Your task to perform on an android device: Go to Yahoo.com Image 0: 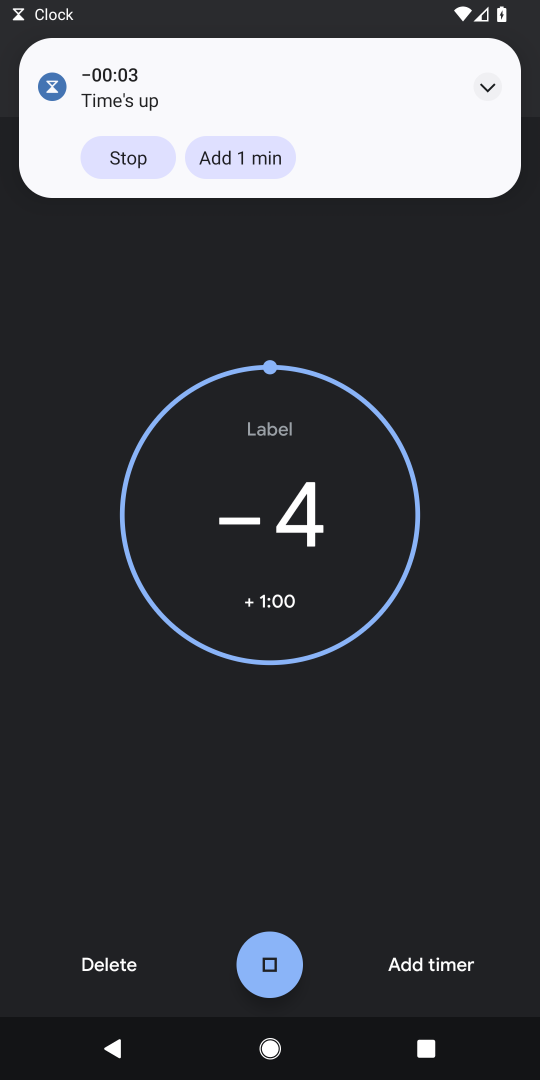
Step 0: click (116, 160)
Your task to perform on an android device: Go to Yahoo.com Image 1: 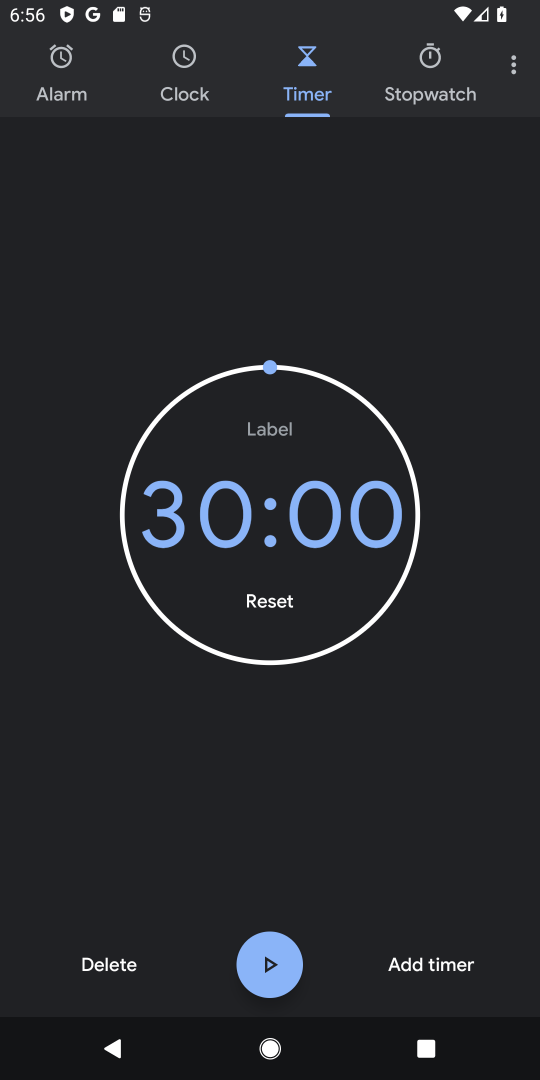
Step 1: press home button
Your task to perform on an android device: Go to Yahoo.com Image 2: 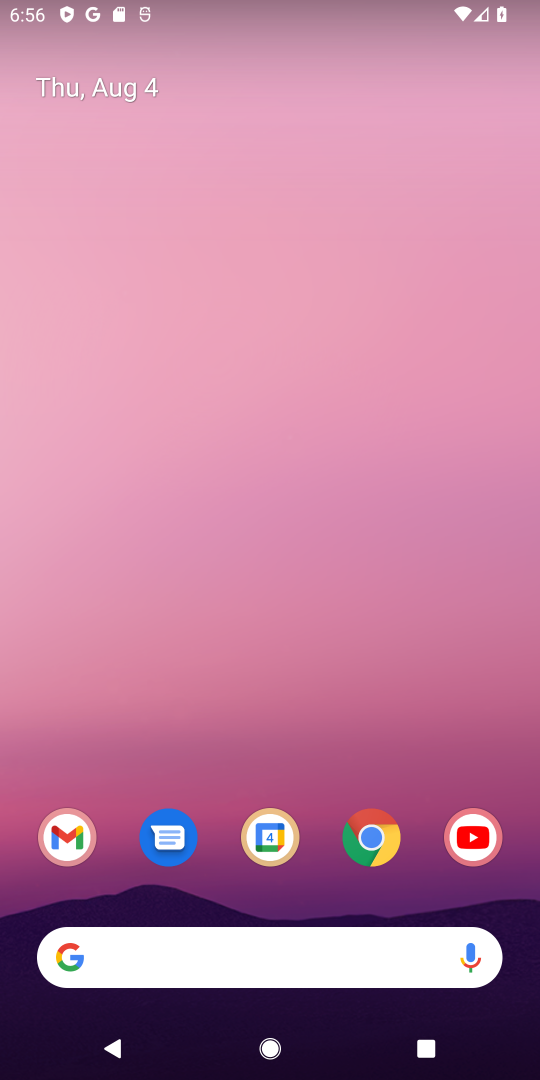
Step 2: click (365, 830)
Your task to perform on an android device: Go to Yahoo.com Image 3: 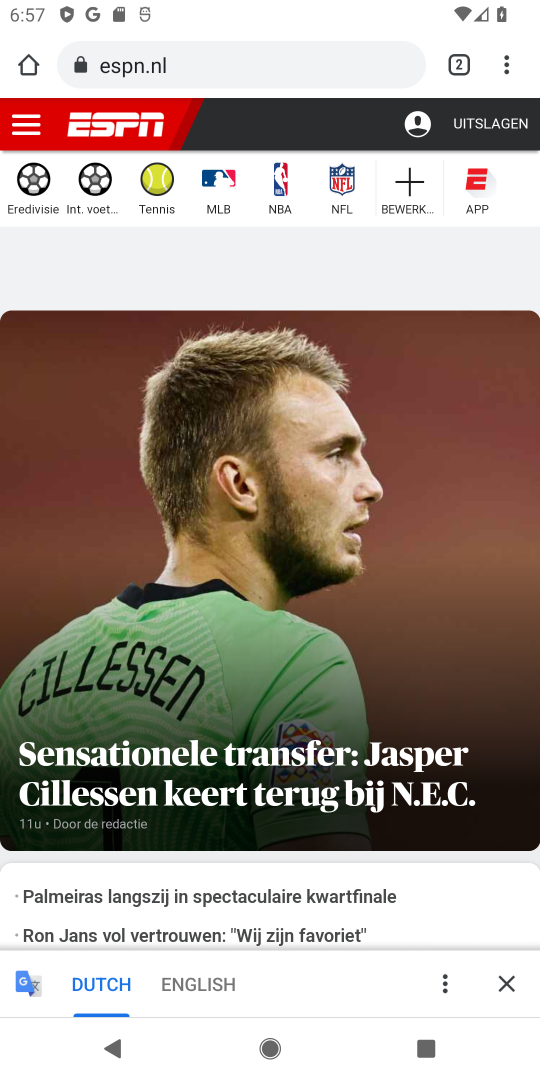
Step 3: click (454, 53)
Your task to perform on an android device: Go to Yahoo.com Image 4: 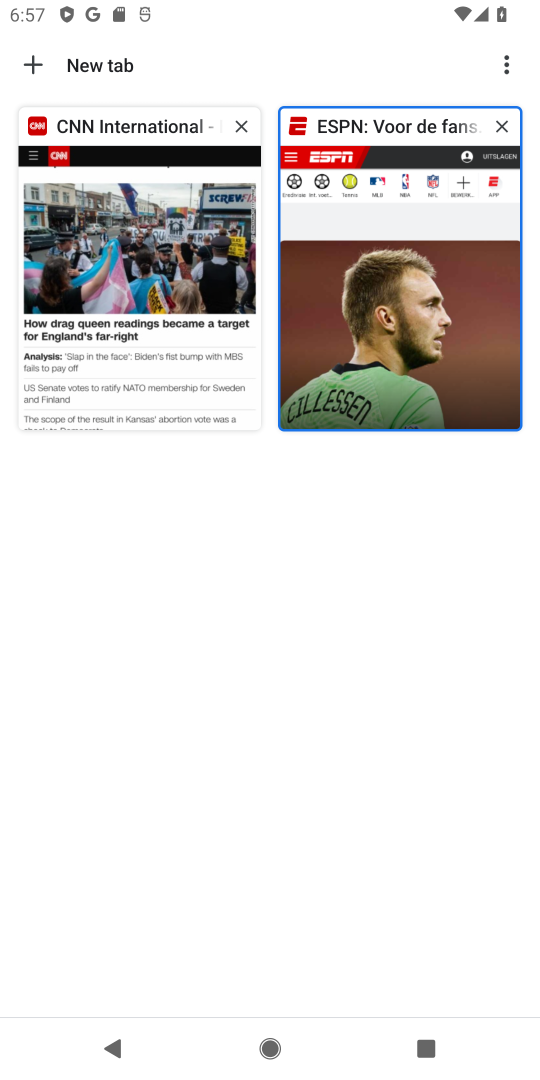
Step 4: click (36, 67)
Your task to perform on an android device: Go to Yahoo.com Image 5: 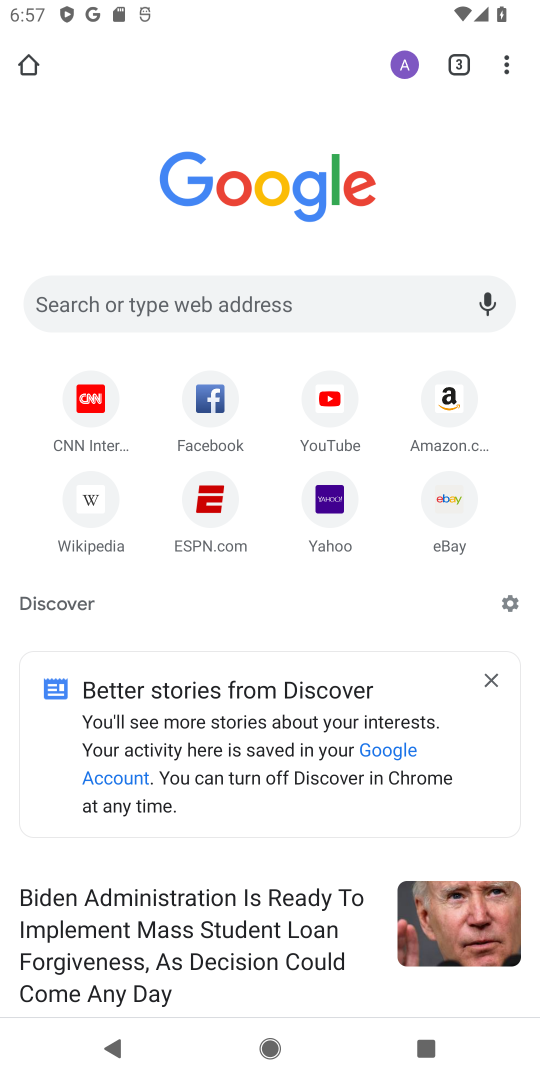
Step 5: click (155, 294)
Your task to perform on an android device: Go to Yahoo.com Image 6: 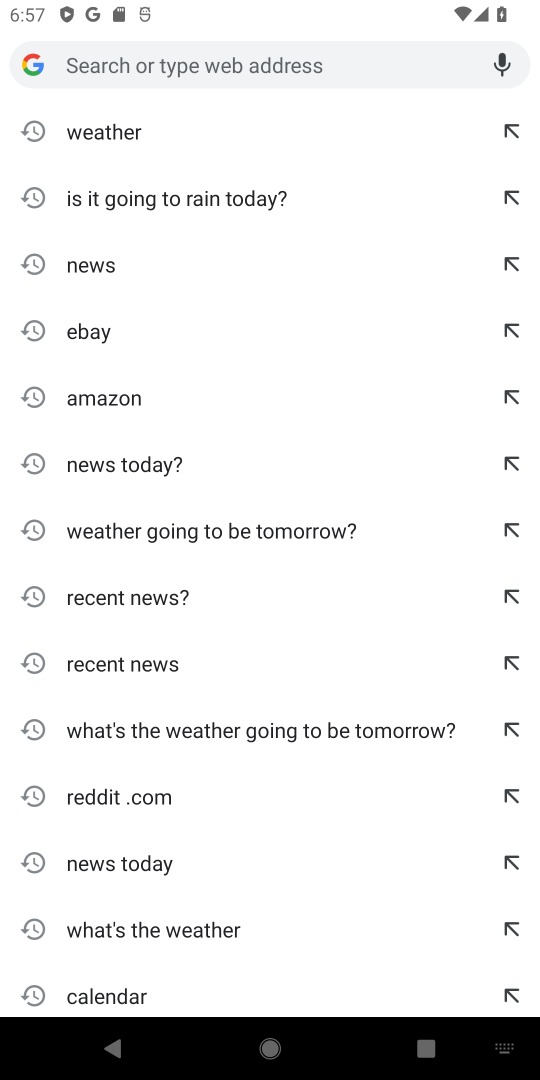
Step 6: type "yahoo.com"
Your task to perform on an android device: Go to Yahoo.com Image 7: 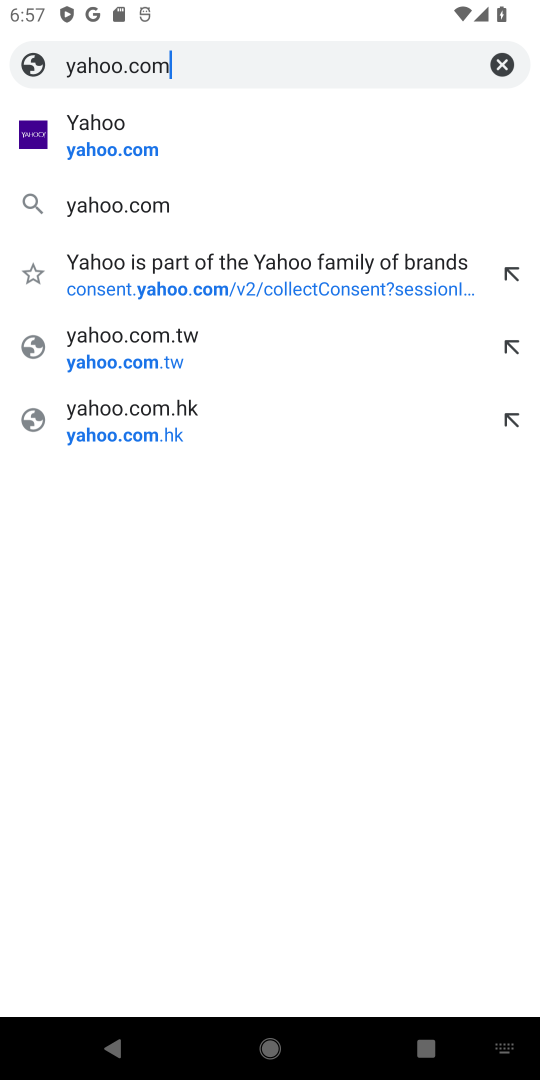
Step 7: click (173, 133)
Your task to perform on an android device: Go to Yahoo.com Image 8: 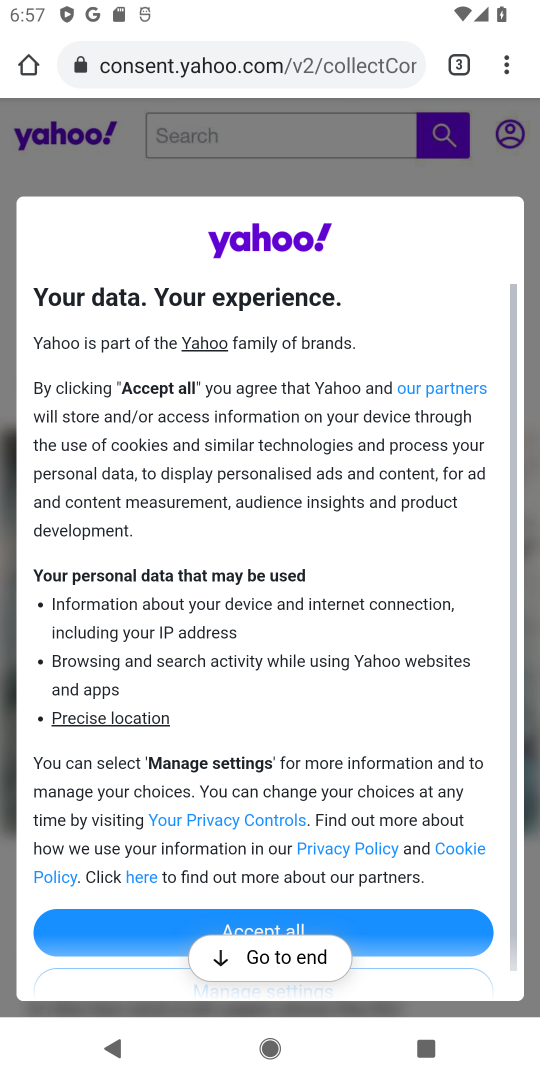
Step 8: click (362, 939)
Your task to perform on an android device: Go to Yahoo.com Image 9: 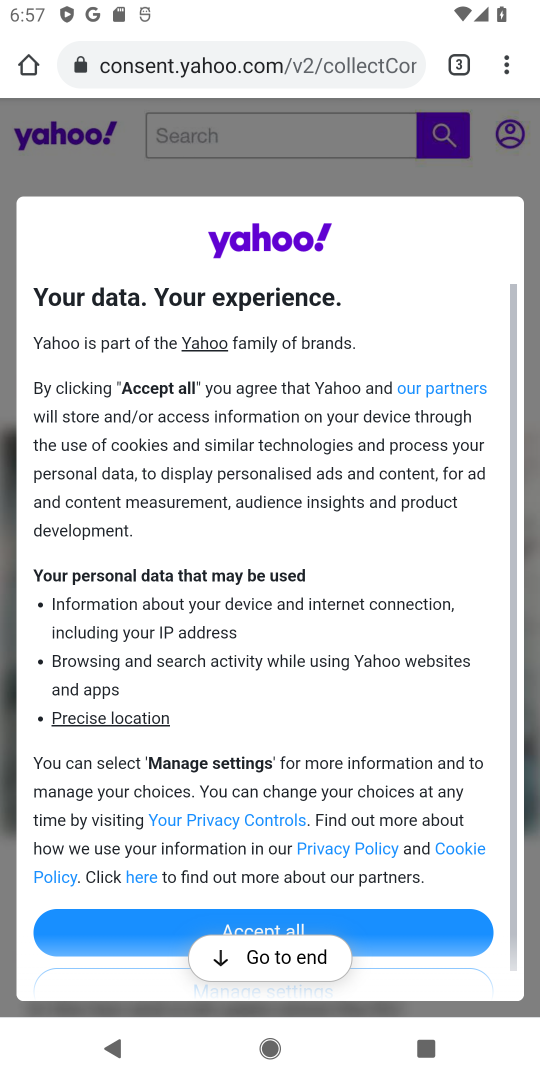
Step 9: click (285, 956)
Your task to perform on an android device: Go to Yahoo.com Image 10: 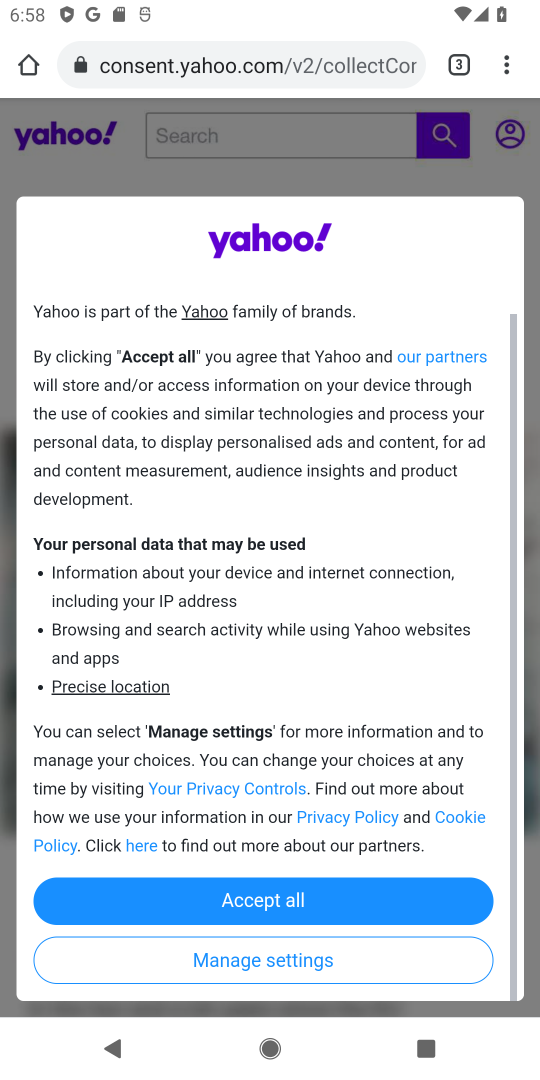
Step 10: click (286, 894)
Your task to perform on an android device: Go to Yahoo.com Image 11: 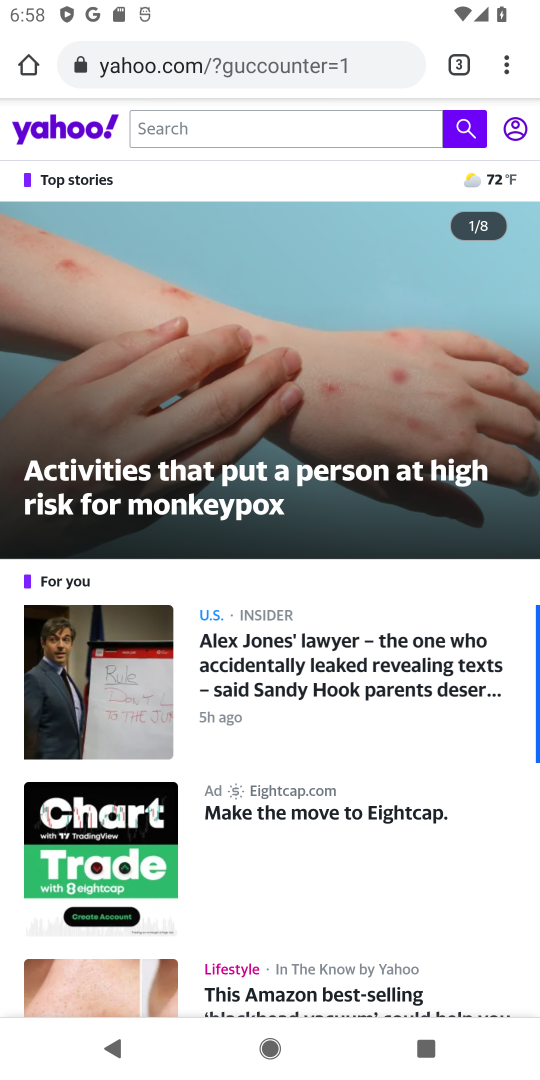
Step 11: task complete